Your task to perform on an android device: Do I have any events this weekend? Image 0: 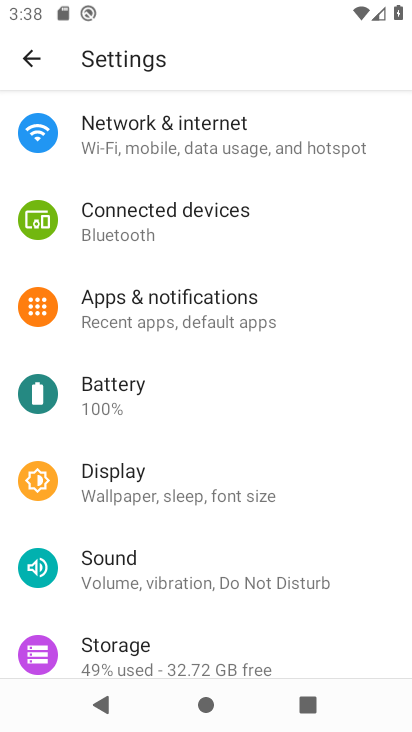
Step 0: press home button
Your task to perform on an android device: Do I have any events this weekend? Image 1: 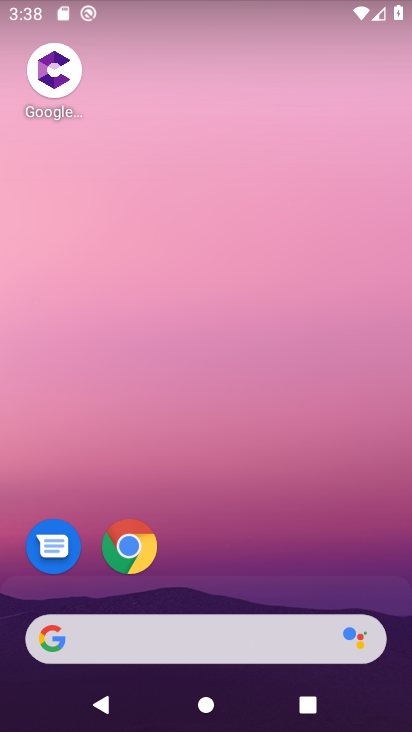
Step 1: drag from (234, 592) to (331, 1)
Your task to perform on an android device: Do I have any events this weekend? Image 2: 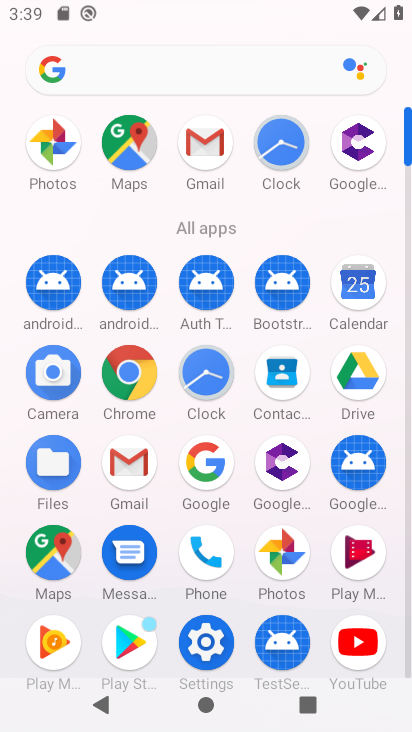
Step 2: click (362, 304)
Your task to perform on an android device: Do I have any events this weekend? Image 3: 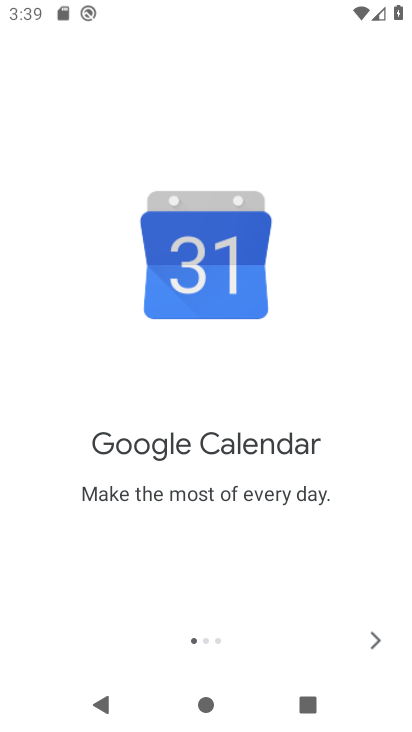
Step 3: click (376, 643)
Your task to perform on an android device: Do I have any events this weekend? Image 4: 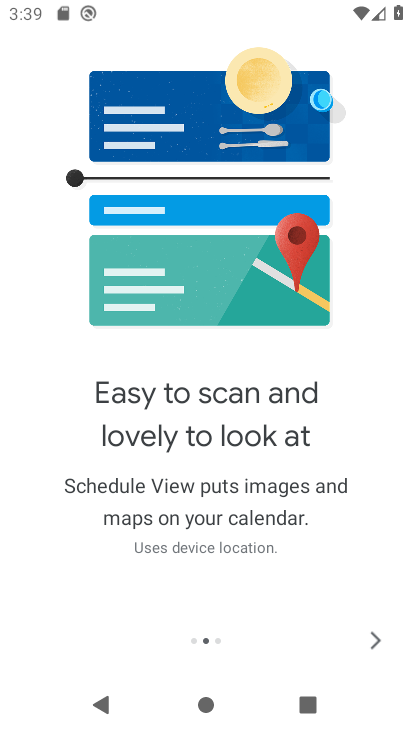
Step 4: click (376, 643)
Your task to perform on an android device: Do I have any events this weekend? Image 5: 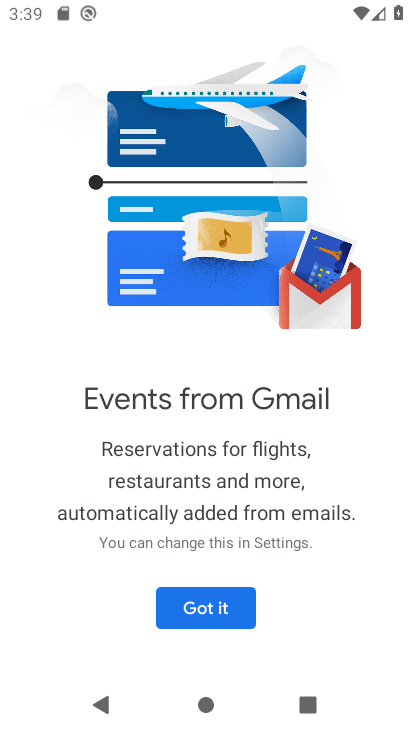
Step 5: click (210, 614)
Your task to perform on an android device: Do I have any events this weekend? Image 6: 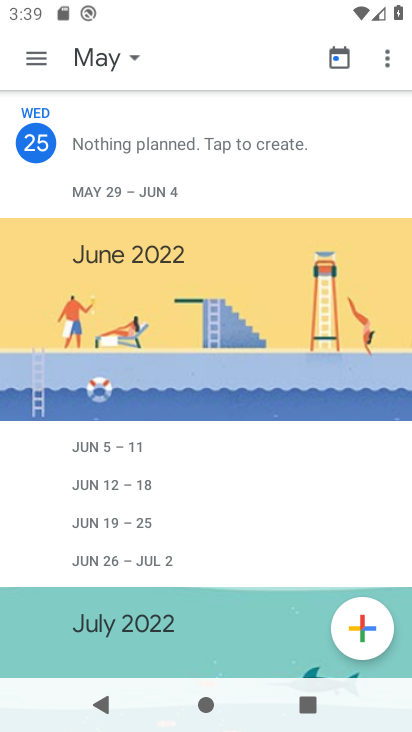
Step 6: click (33, 67)
Your task to perform on an android device: Do I have any events this weekend? Image 7: 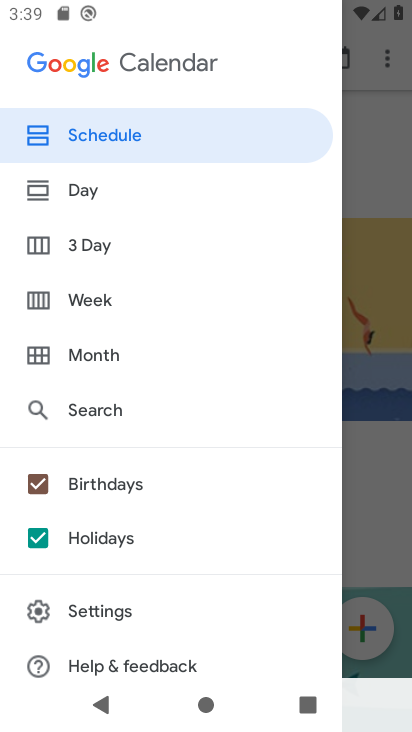
Step 7: drag from (134, 543) to (133, 269)
Your task to perform on an android device: Do I have any events this weekend? Image 8: 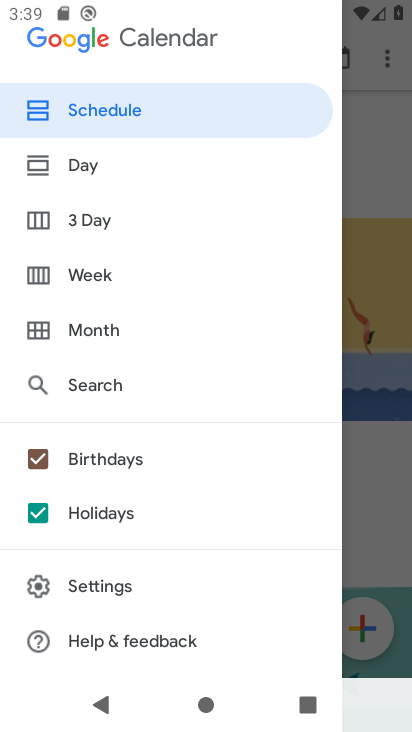
Step 8: click (37, 519)
Your task to perform on an android device: Do I have any events this weekend? Image 9: 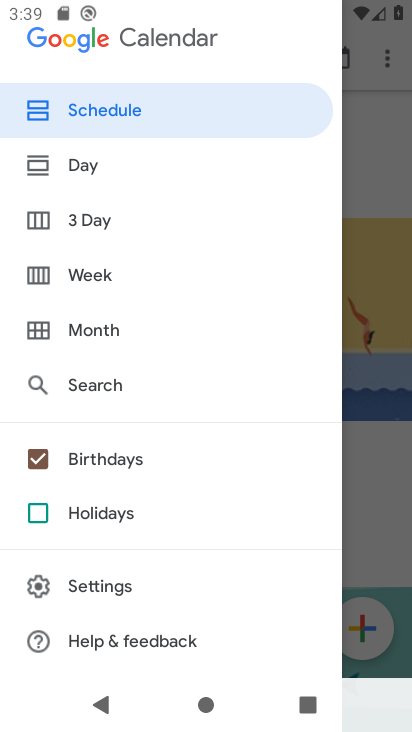
Step 9: click (31, 449)
Your task to perform on an android device: Do I have any events this weekend? Image 10: 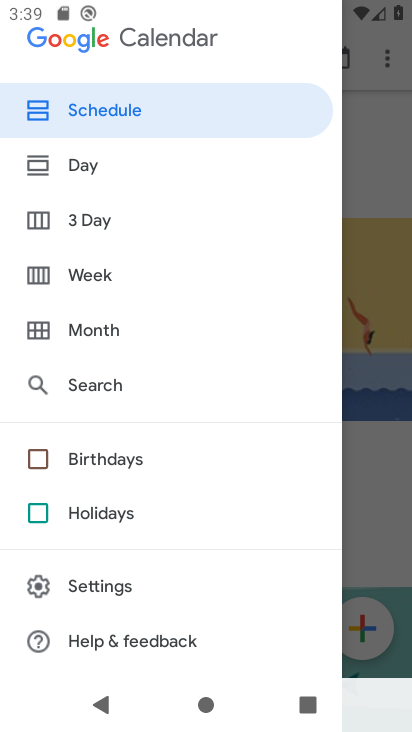
Step 10: drag from (177, 492) to (152, 130)
Your task to perform on an android device: Do I have any events this weekend? Image 11: 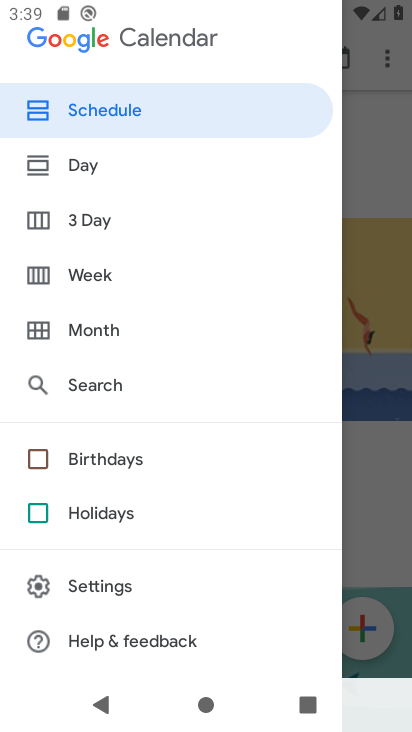
Step 11: drag from (245, 506) to (218, 165)
Your task to perform on an android device: Do I have any events this weekend? Image 12: 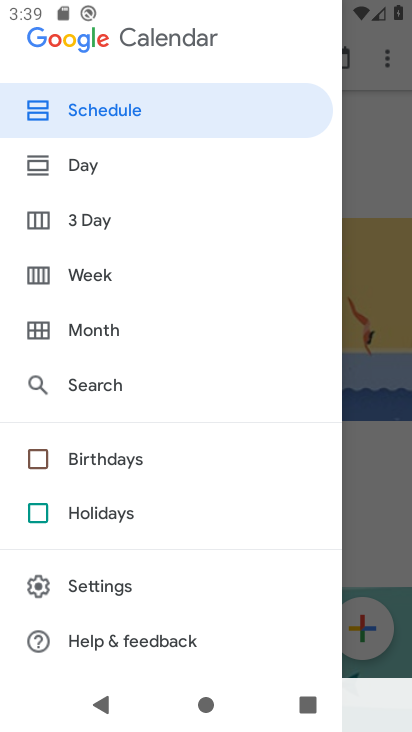
Step 12: drag from (225, 442) to (213, 644)
Your task to perform on an android device: Do I have any events this weekend? Image 13: 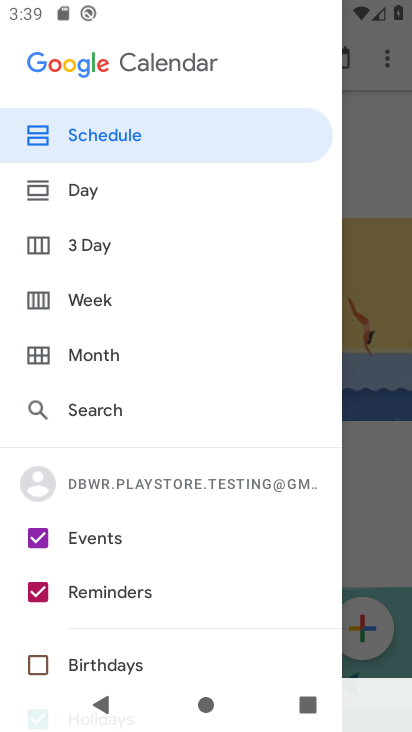
Step 13: click (89, 595)
Your task to perform on an android device: Do I have any events this weekend? Image 14: 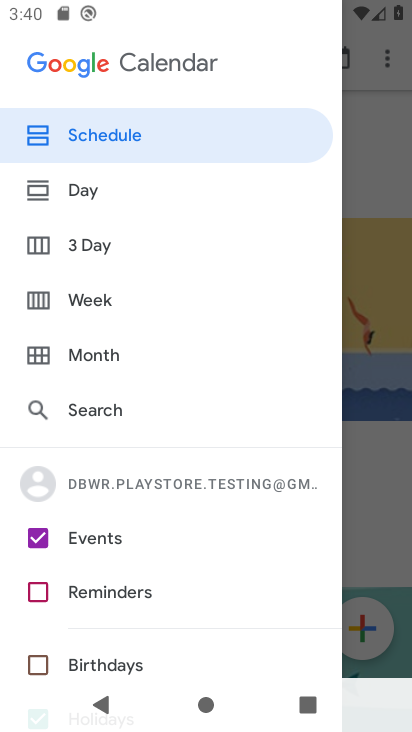
Step 14: click (79, 250)
Your task to perform on an android device: Do I have any events this weekend? Image 15: 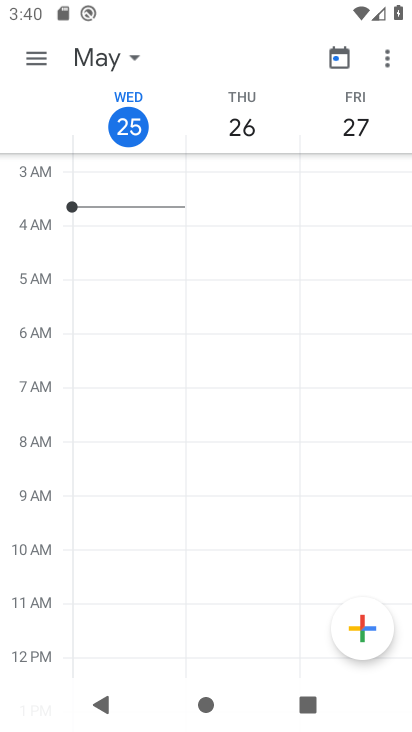
Step 15: click (134, 57)
Your task to perform on an android device: Do I have any events this weekend? Image 16: 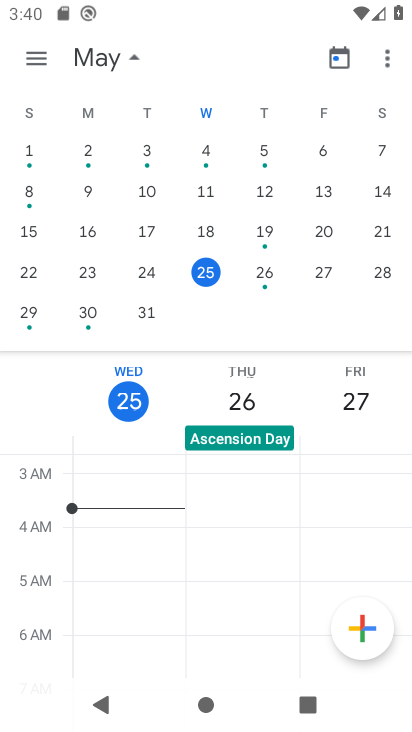
Step 16: click (371, 273)
Your task to perform on an android device: Do I have any events this weekend? Image 17: 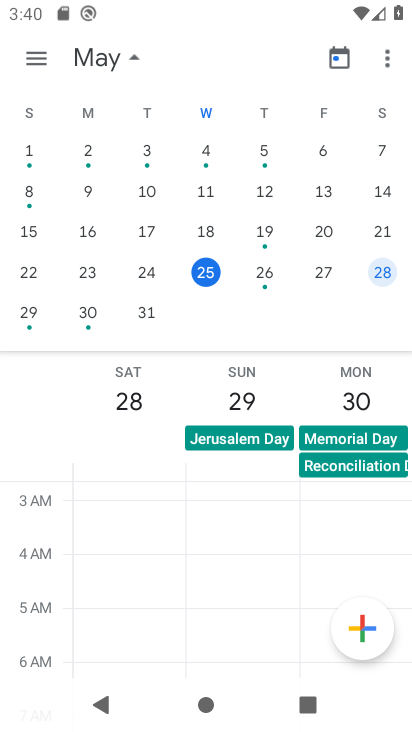
Step 17: task complete